Your task to perform on an android device: toggle pop-ups in chrome Image 0: 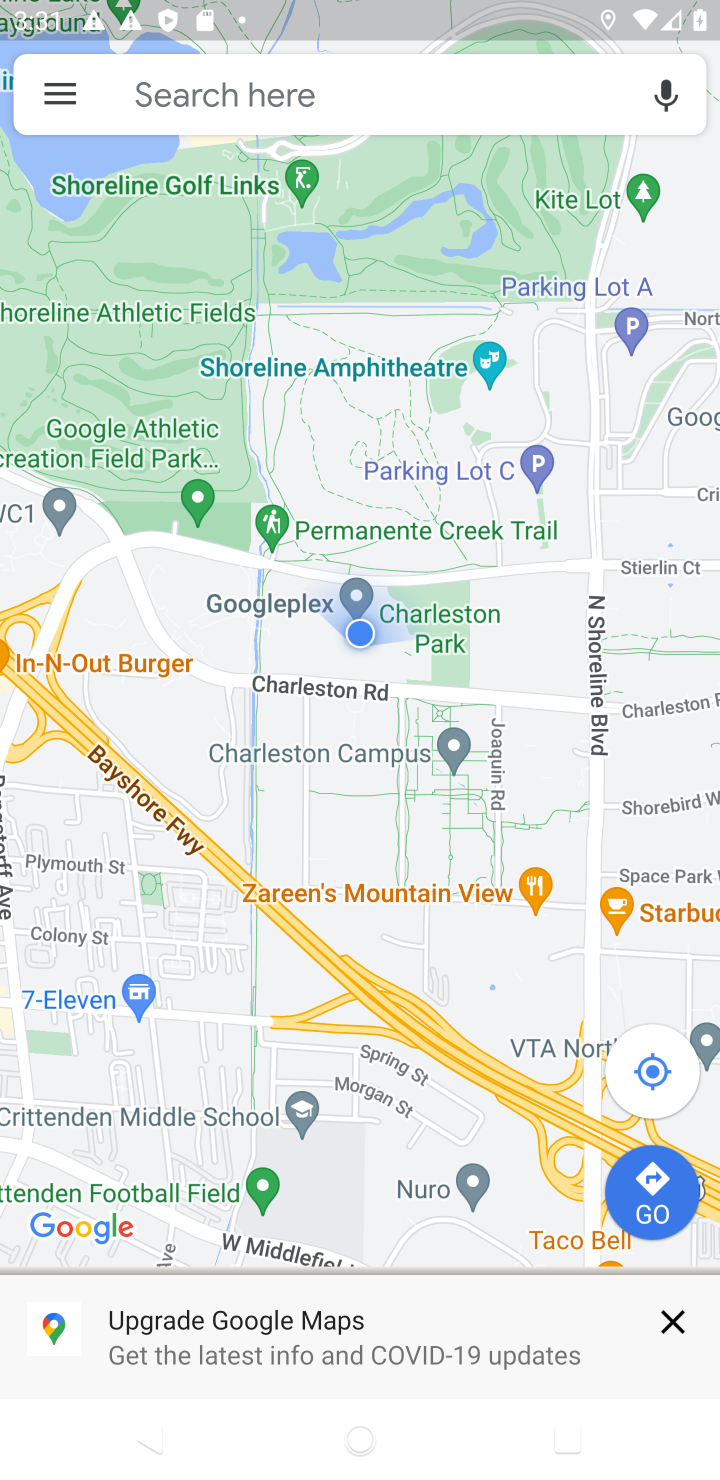
Step 0: press home button
Your task to perform on an android device: toggle pop-ups in chrome Image 1: 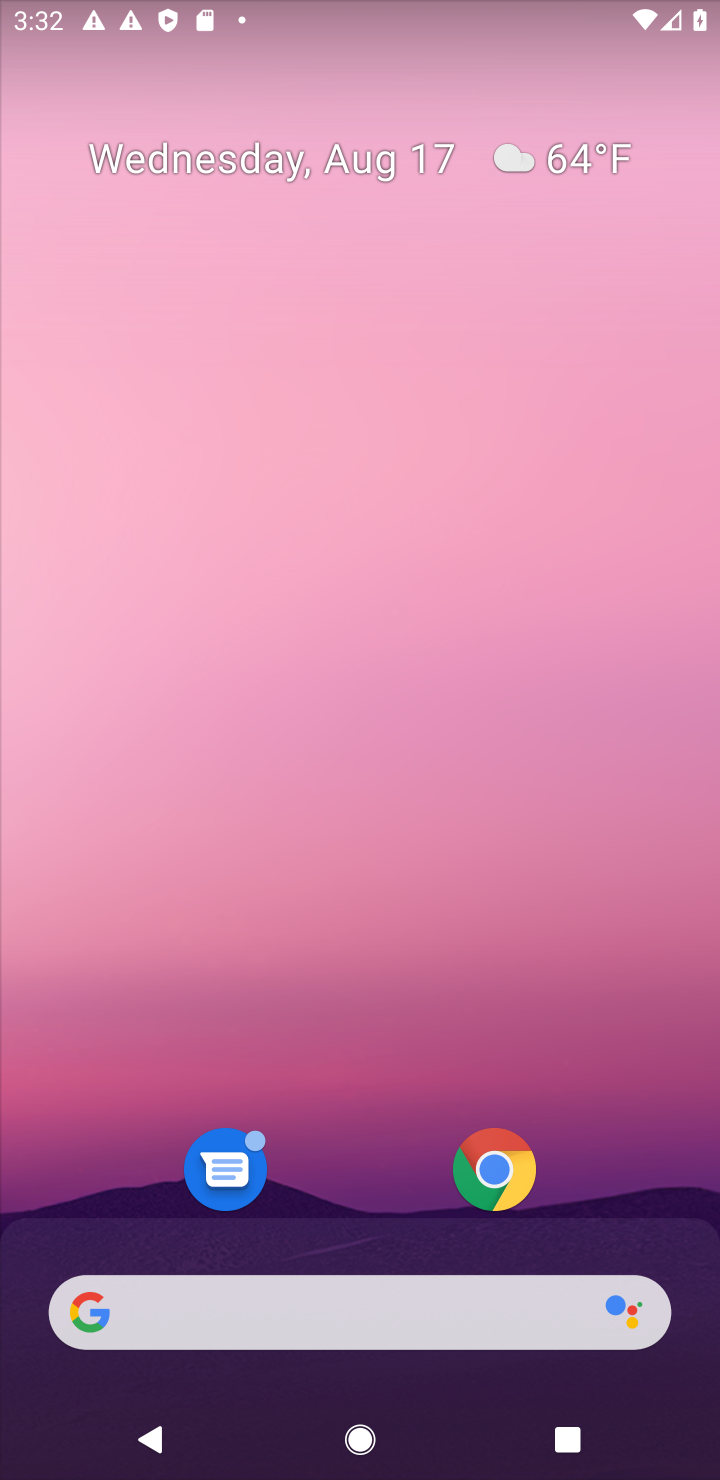
Step 1: drag from (390, 978) to (466, 80)
Your task to perform on an android device: toggle pop-ups in chrome Image 2: 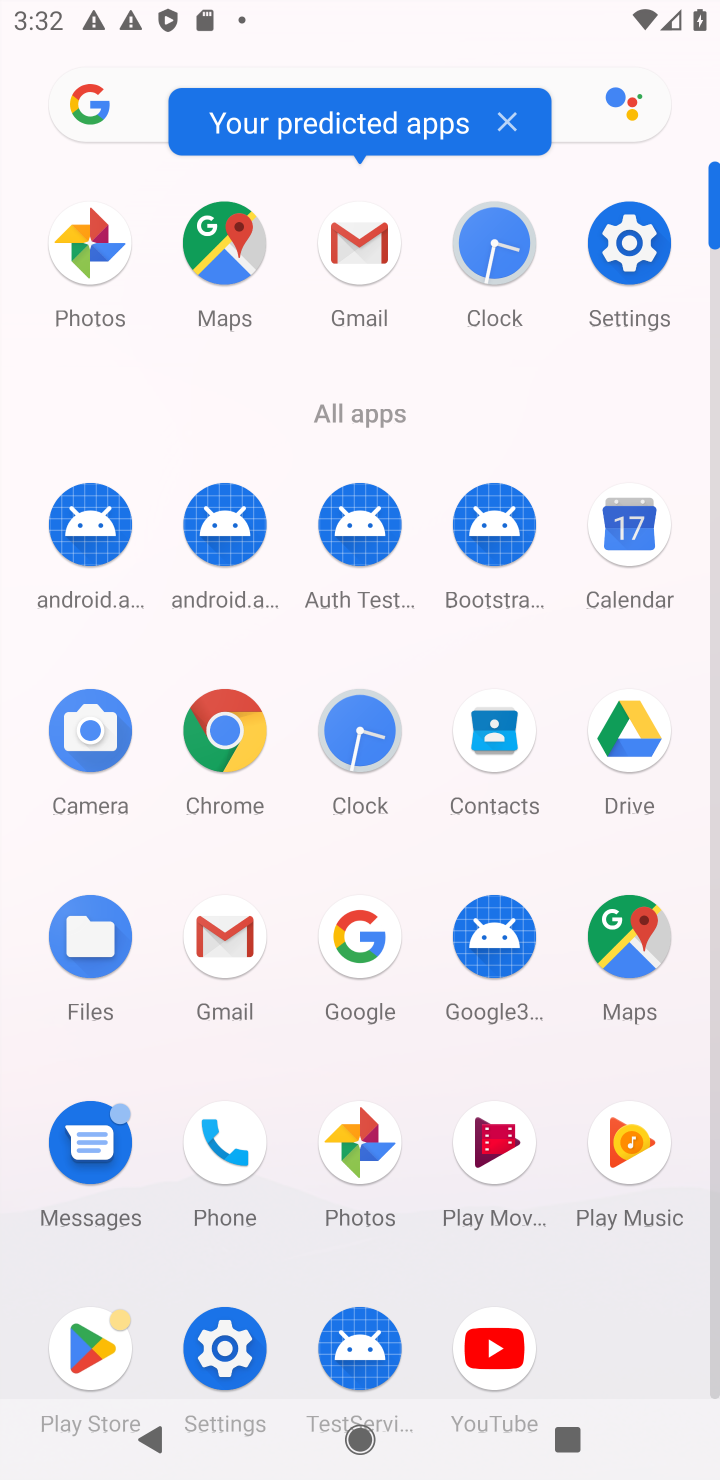
Step 2: click (236, 740)
Your task to perform on an android device: toggle pop-ups in chrome Image 3: 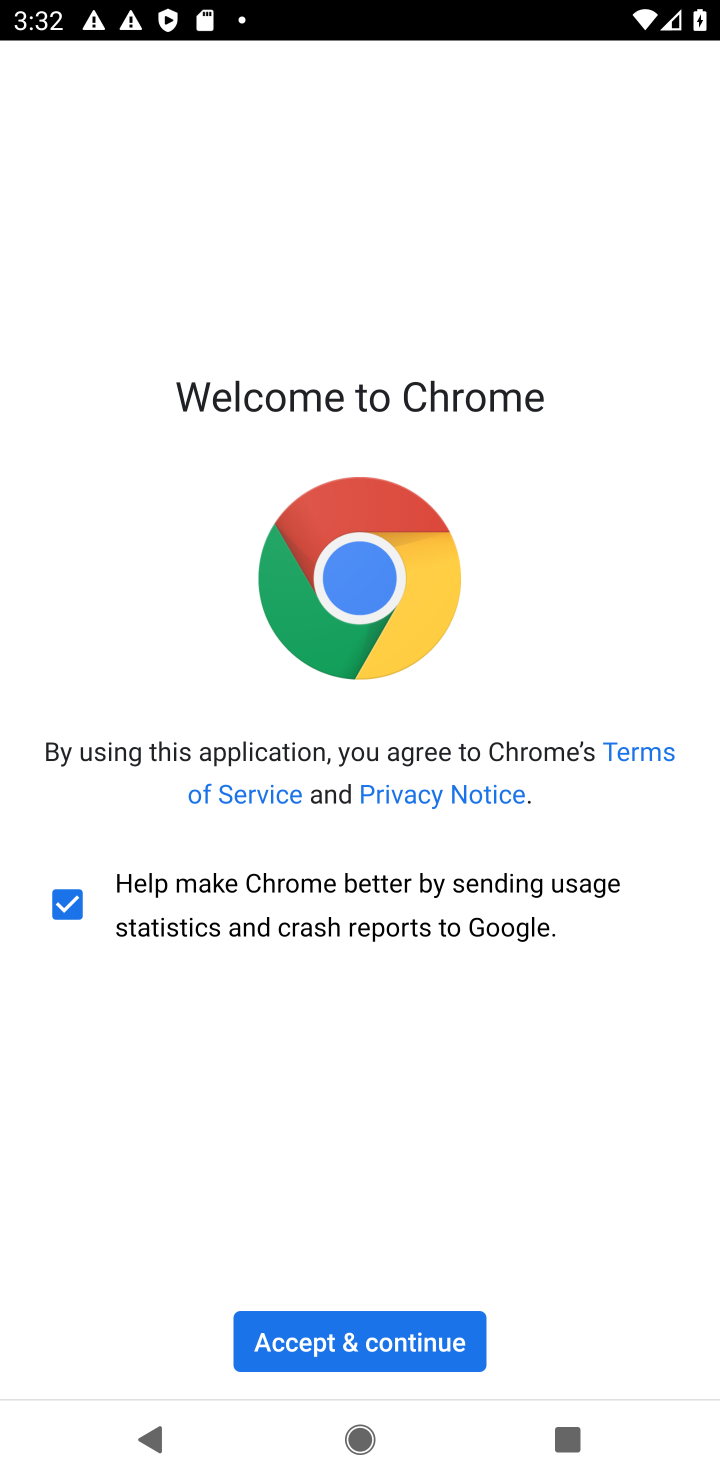
Step 3: click (346, 1339)
Your task to perform on an android device: toggle pop-ups in chrome Image 4: 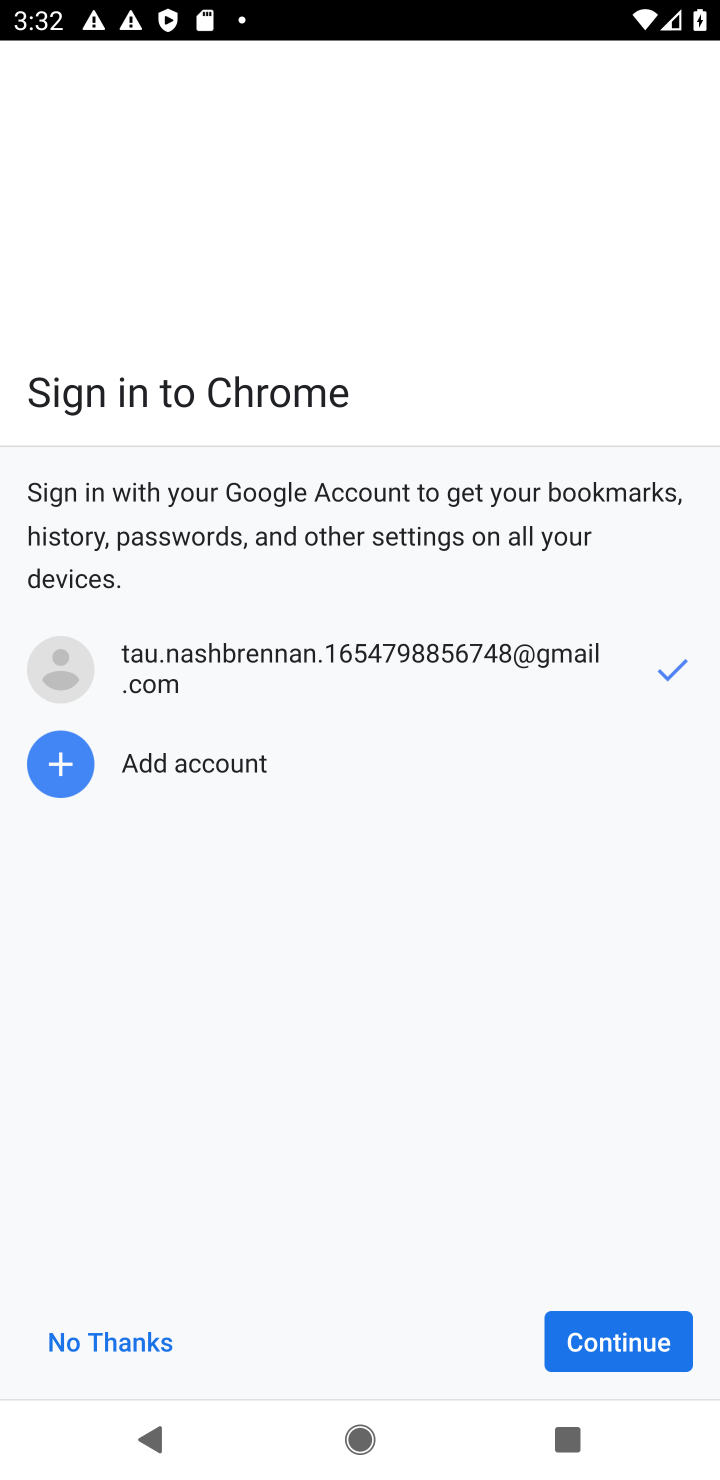
Step 4: click (638, 1336)
Your task to perform on an android device: toggle pop-ups in chrome Image 5: 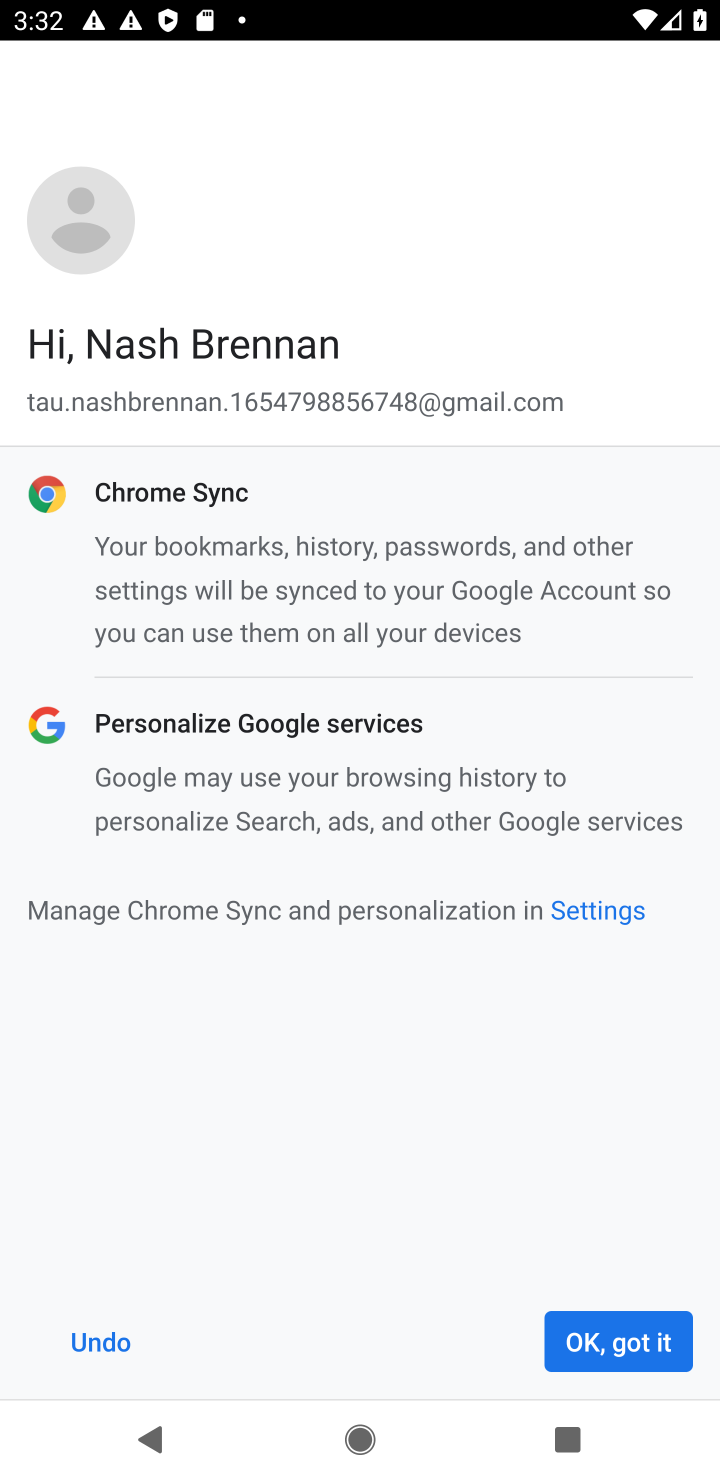
Step 5: click (636, 1318)
Your task to perform on an android device: toggle pop-ups in chrome Image 6: 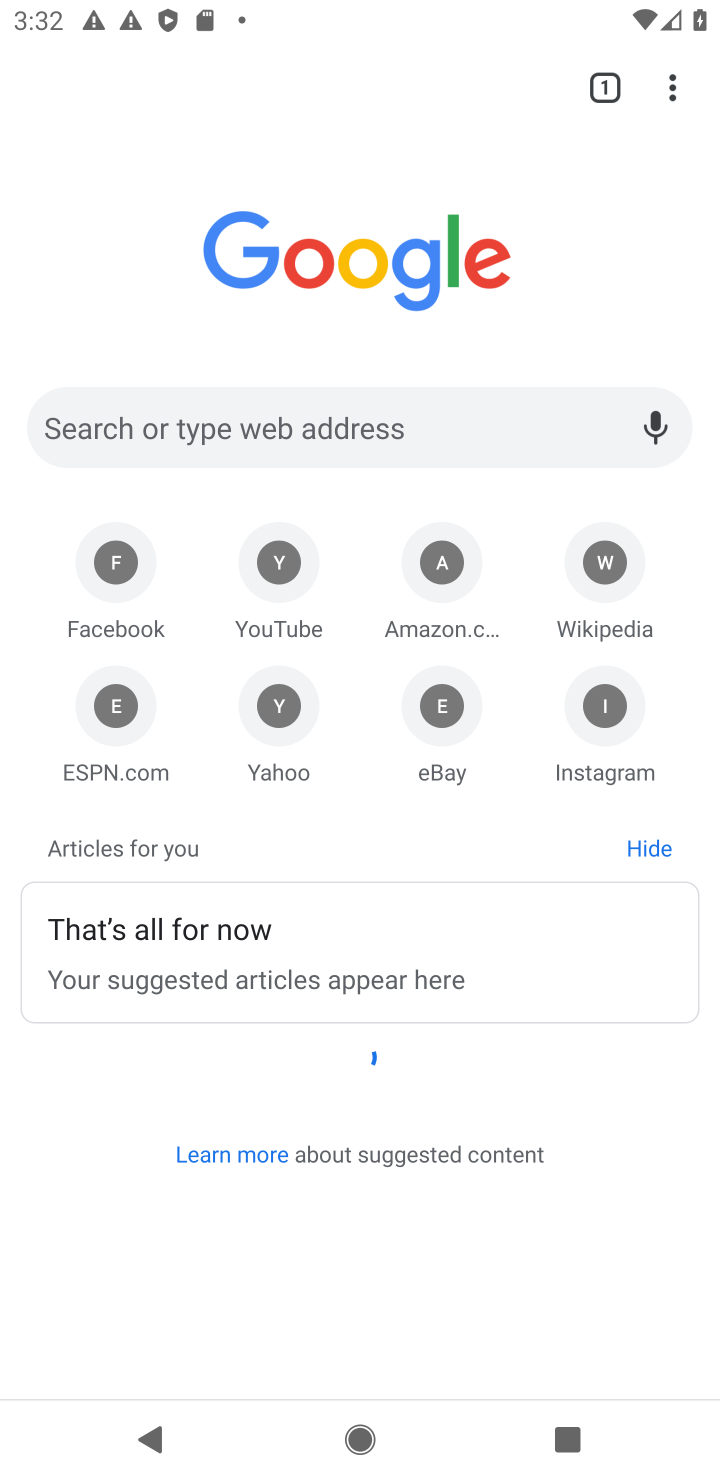
Step 6: click (339, 409)
Your task to perform on an android device: toggle pop-ups in chrome Image 7: 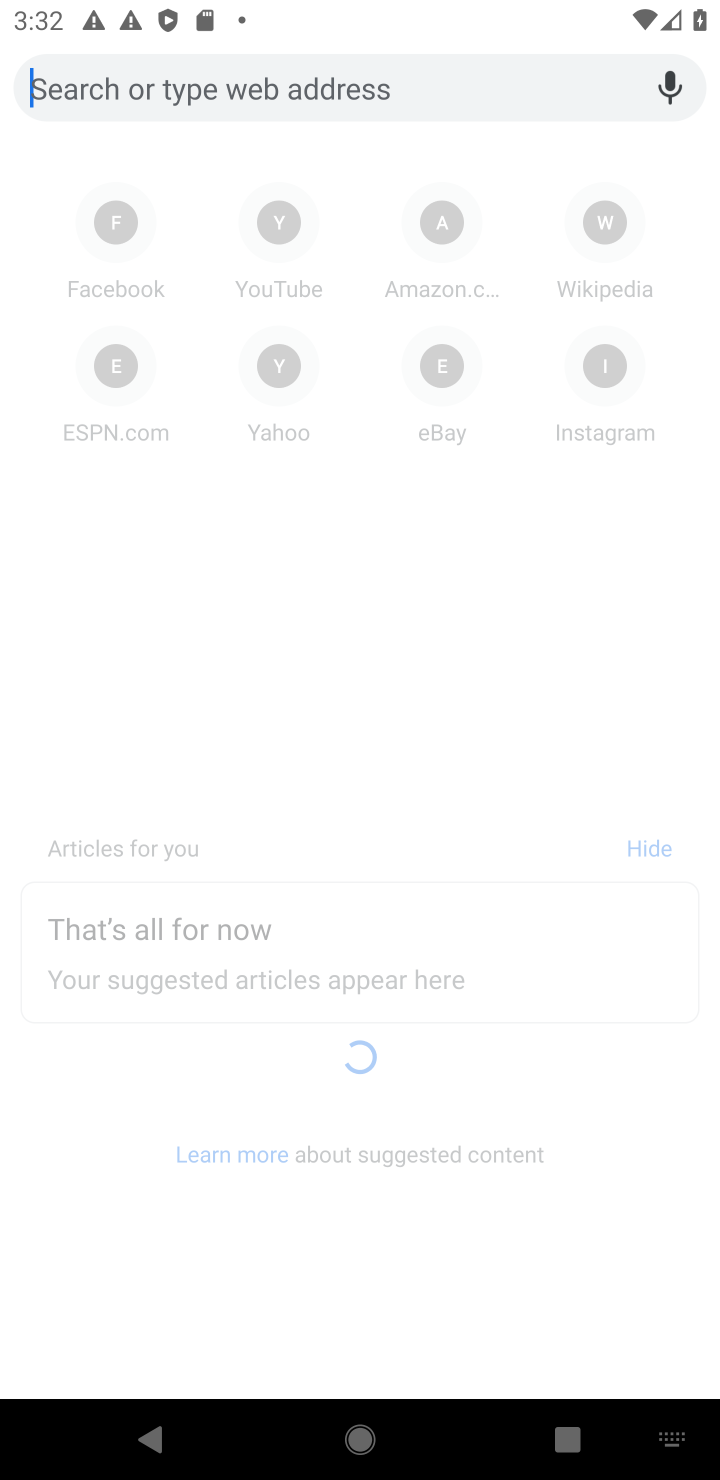
Step 7: press back button
Your task to perform on an android device: toggle pop-ups in chrome Image 8: 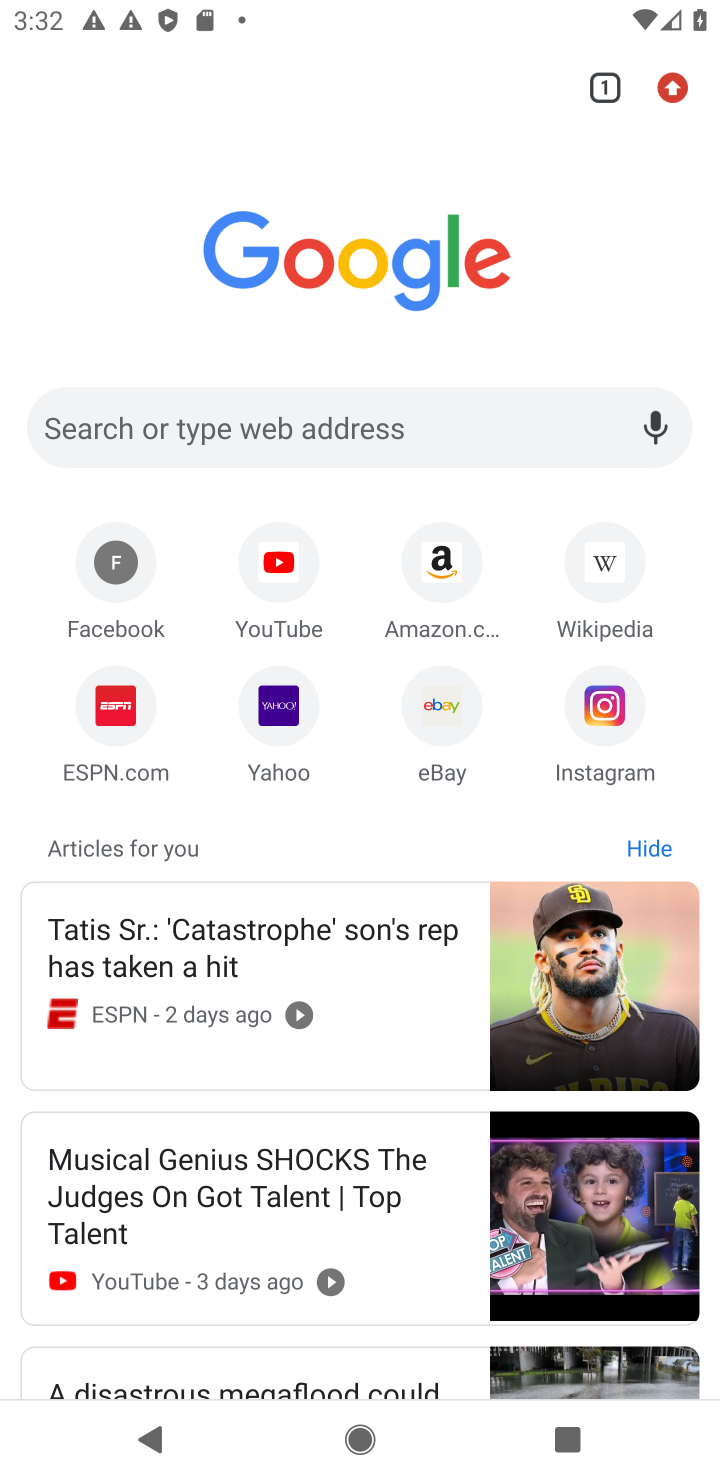
Step 8: click (666, 83)
Your task to perform on an android device: toggle pop-ups in chrome Image 9: 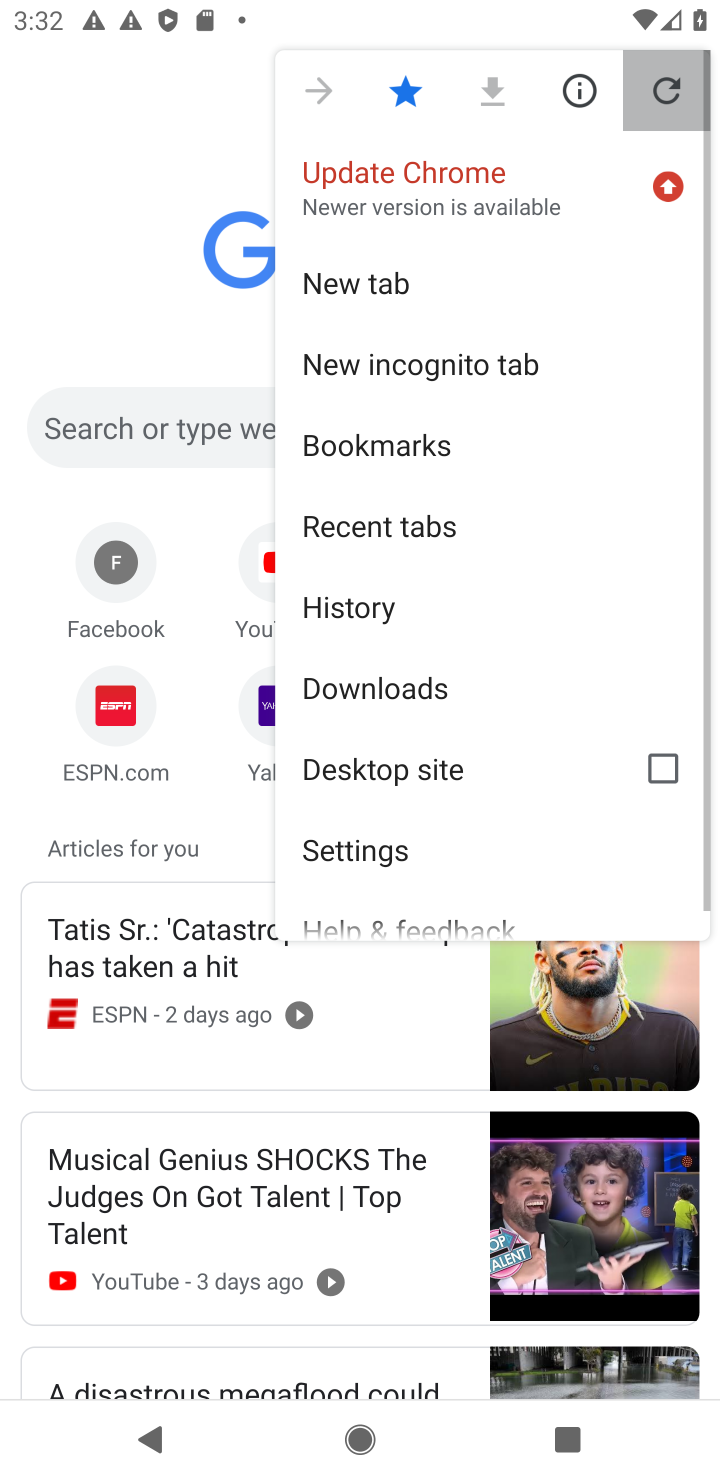
Step 9: click (666, 98)
Your task to perform on an android device: toggle pop-ups in chrome Image 10: 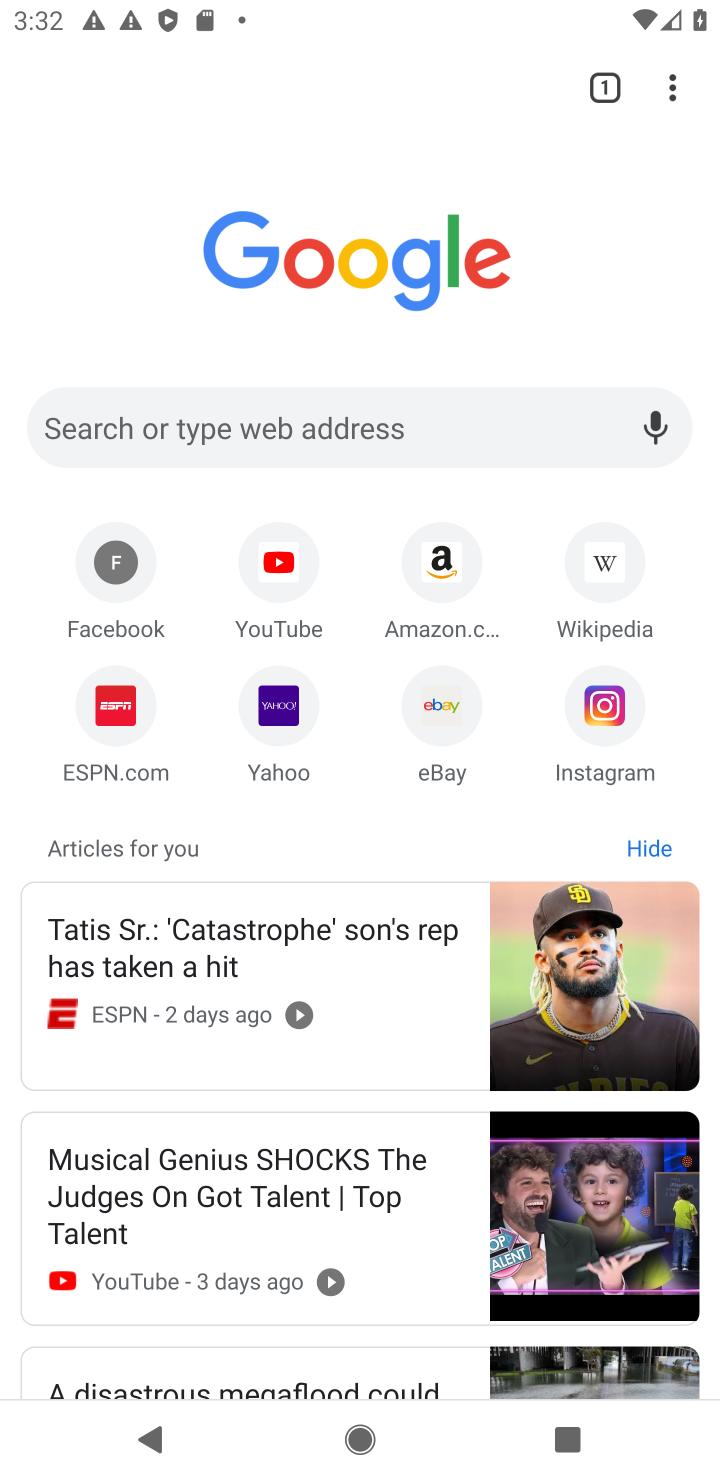
Step 10: drag from (666, 98) to (376, 839)
Your task to perform on an android device: toggle pop-ups in chrome Image 11: 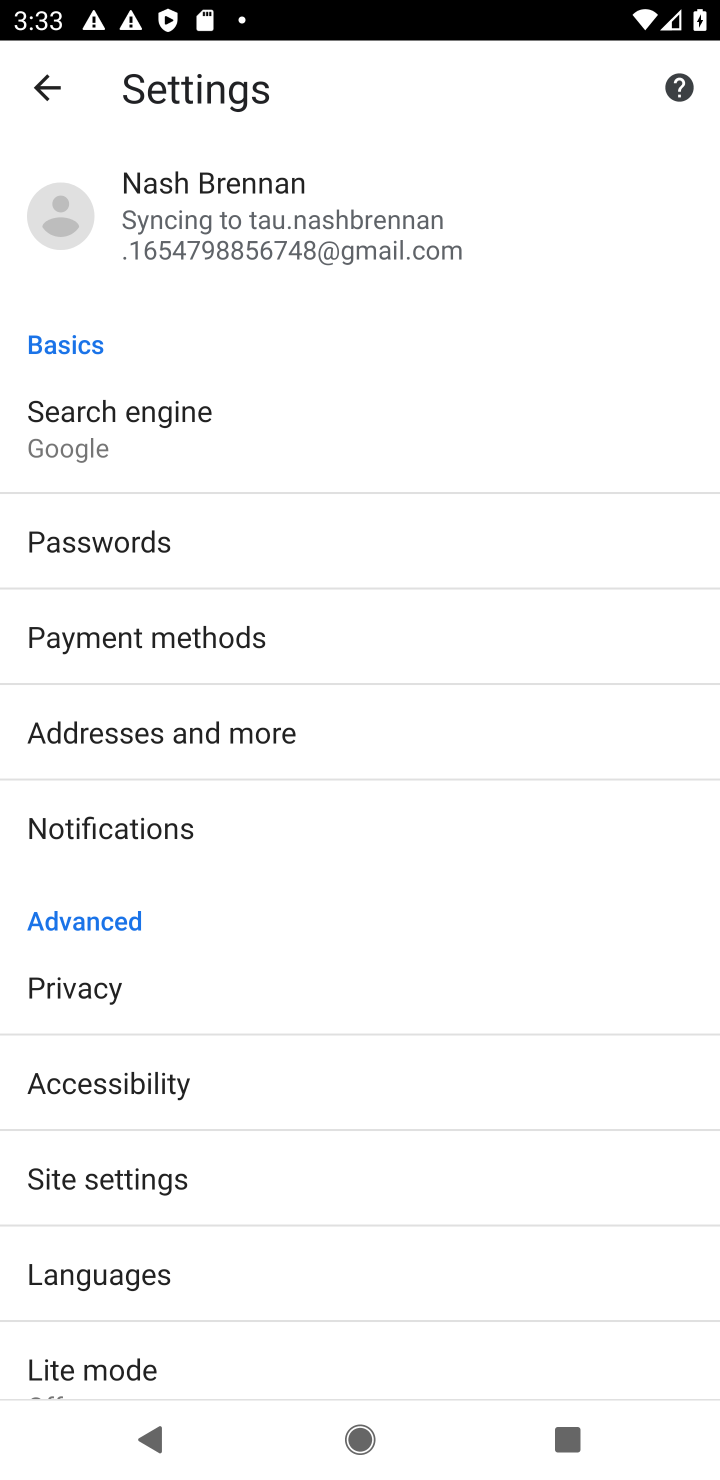
Step 11: click (135, 1178)
Your task to perform on an android device: toggle pop-ups in chrome Image 12: 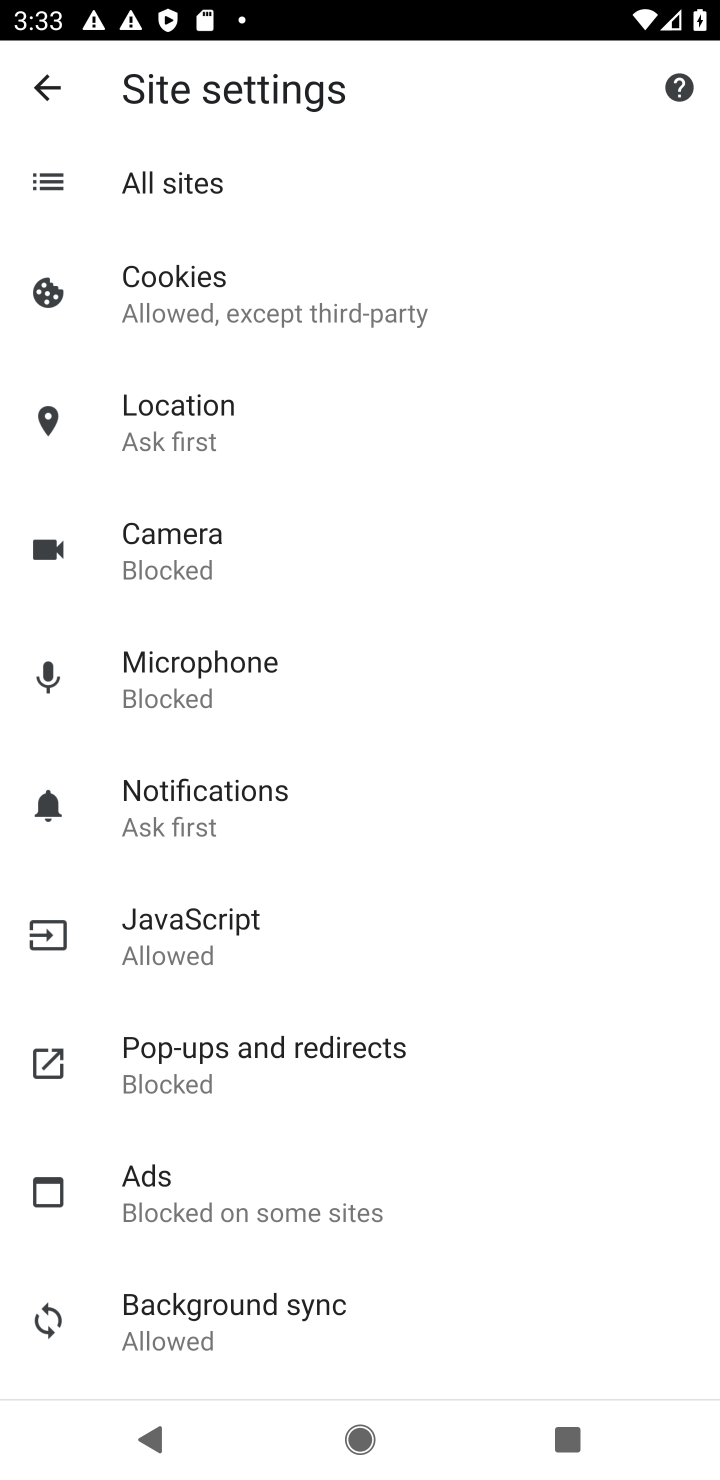
Step 12: click (306, 1034)
Your task to perform on an android device: toggle pop-ups in chrome Image 13: 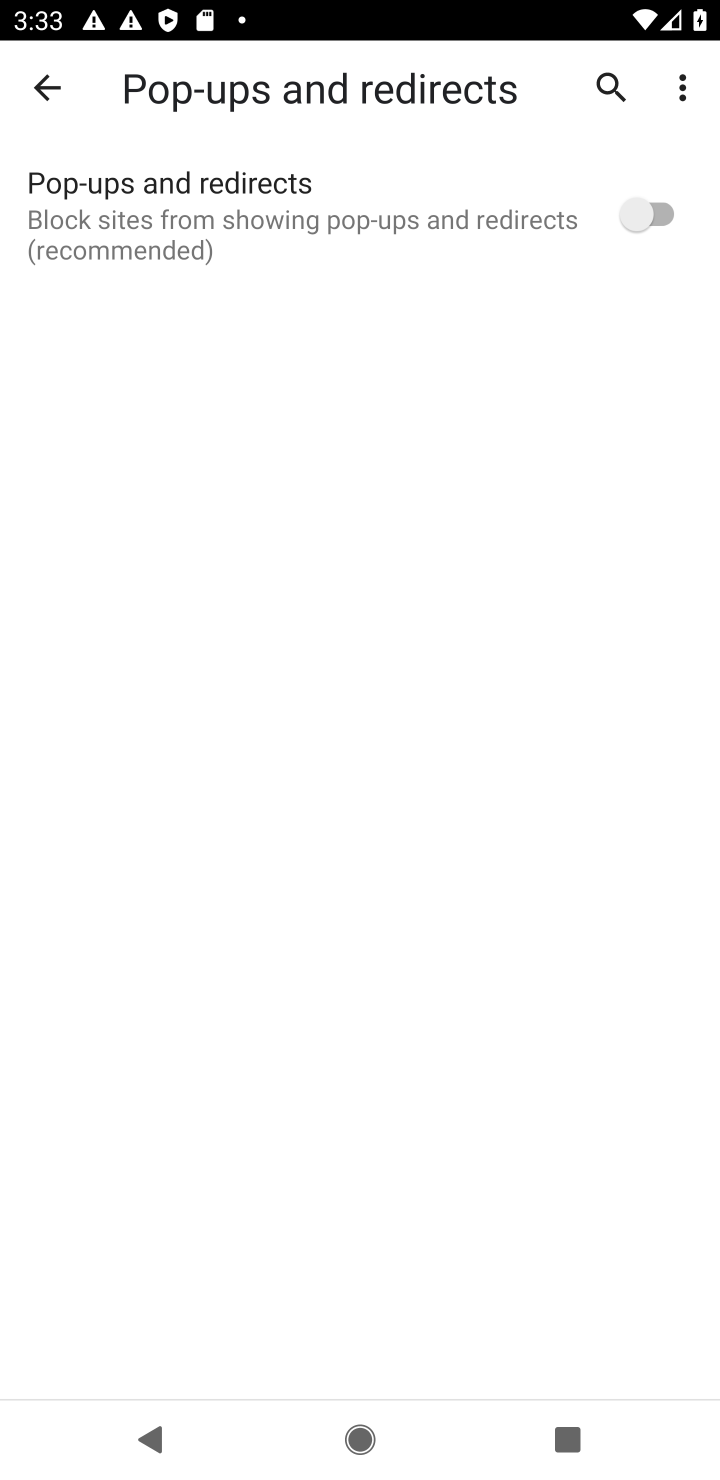
Step 13: click (469, 206)
Your task to perform on an android device: toggle pop-ups in chrome Image 14: 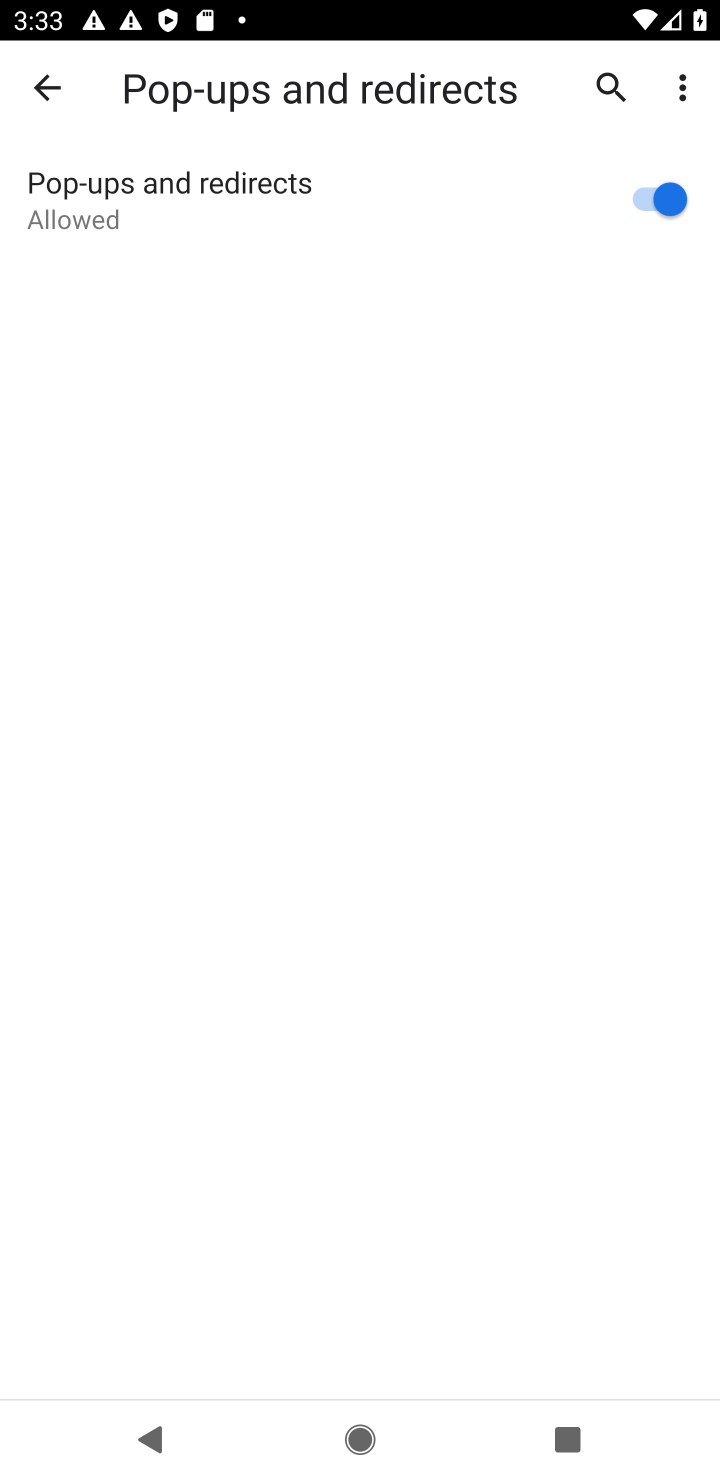
Step 14: task complete